Your task to perform on an android device: open a bookmark in the chrome app Image 0: 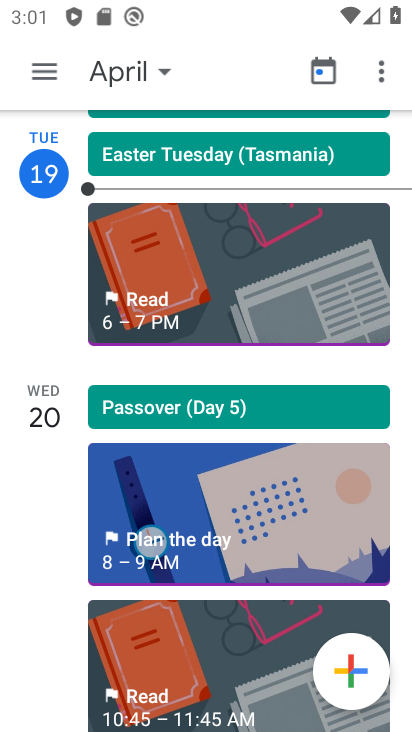
Step 0: press home button
Your task to perform on an android device: open a bookmark in the chrome app Image 1: 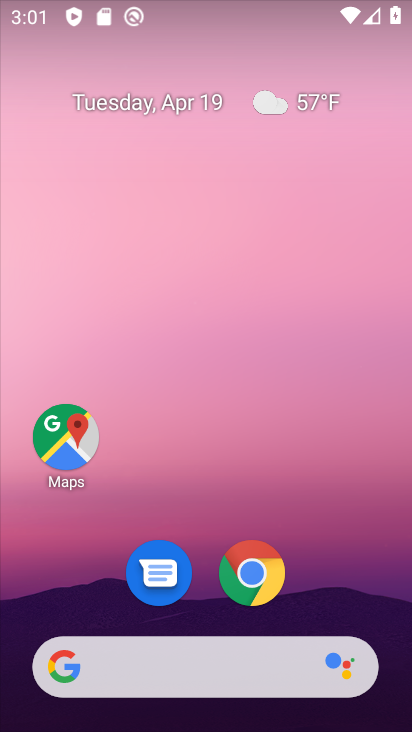
Step 1: click (257, 584)
Your task to perform on an android device: open a bookmark in the chrome app Image 2: 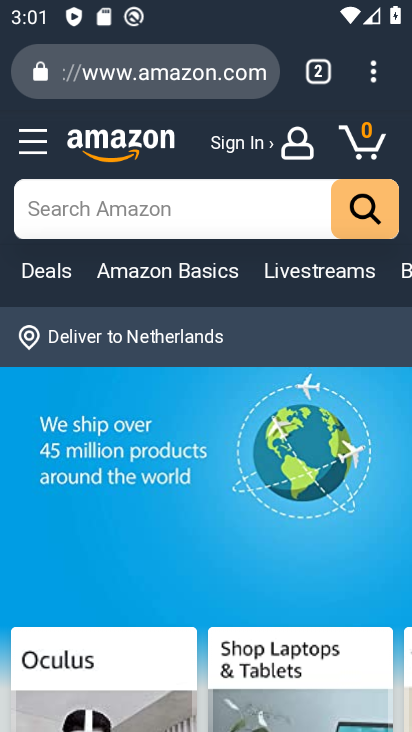
Step 2: click (376, 69)
Your task to perform on an android device: open a bookmark in the chrome app Image 3: 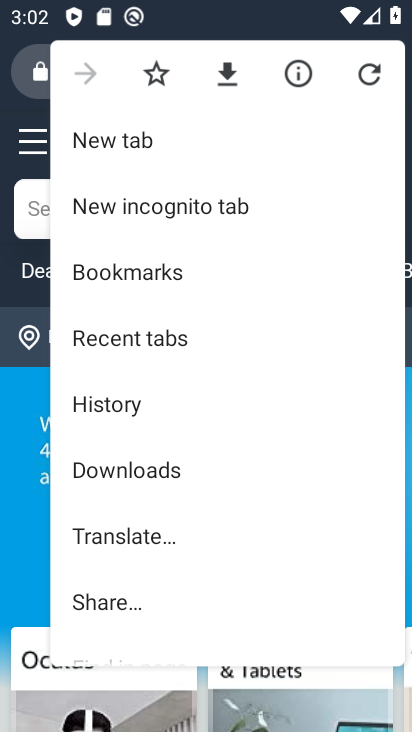
Step 3: click (137, 280)
Your task to perform on an android device: open a bookmark in the chrome app Image 4: 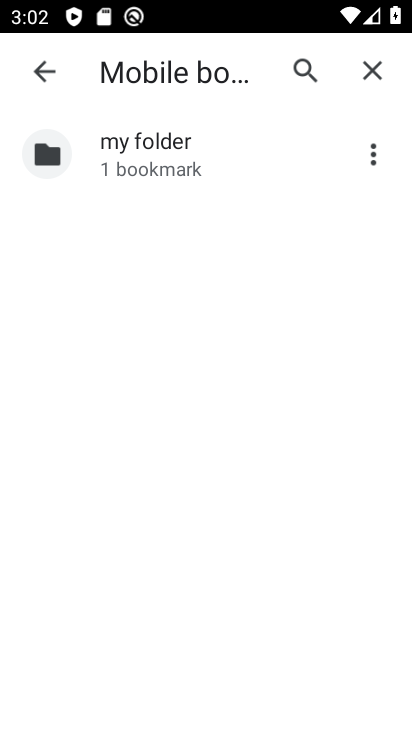
Step 4: click (141, 166)
Your task to perform on an android device: open a bookmark in the chrome app Image 5: 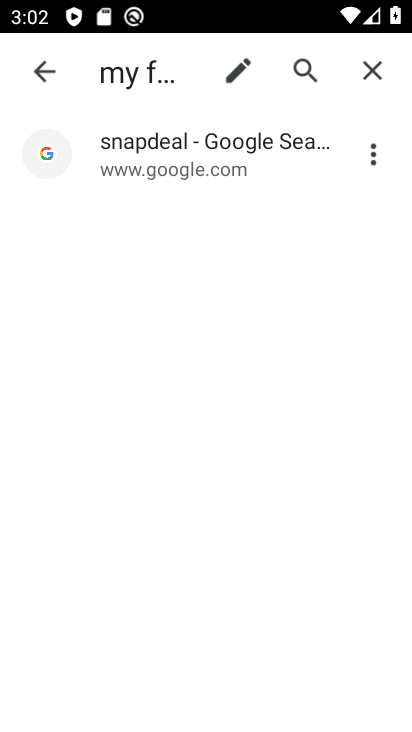
Step 5: click (141, 166)
Your task to perform on an android device: open a bookmark in the chrome app Image 6: 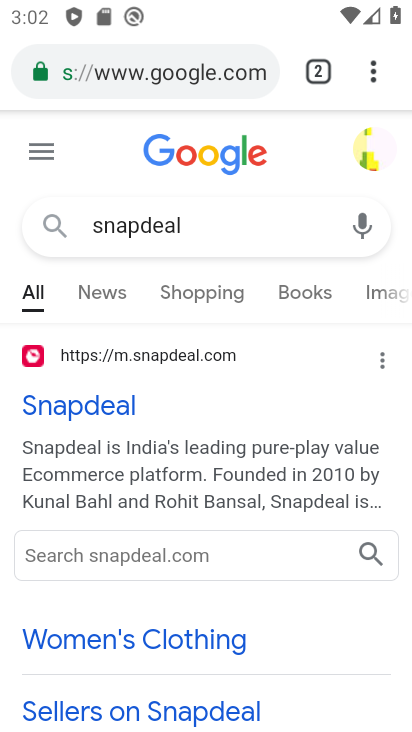
Step 6: task complete